Your task to perform on an android device: Add "logitech g933" to the cart on bestbuy Image 0: 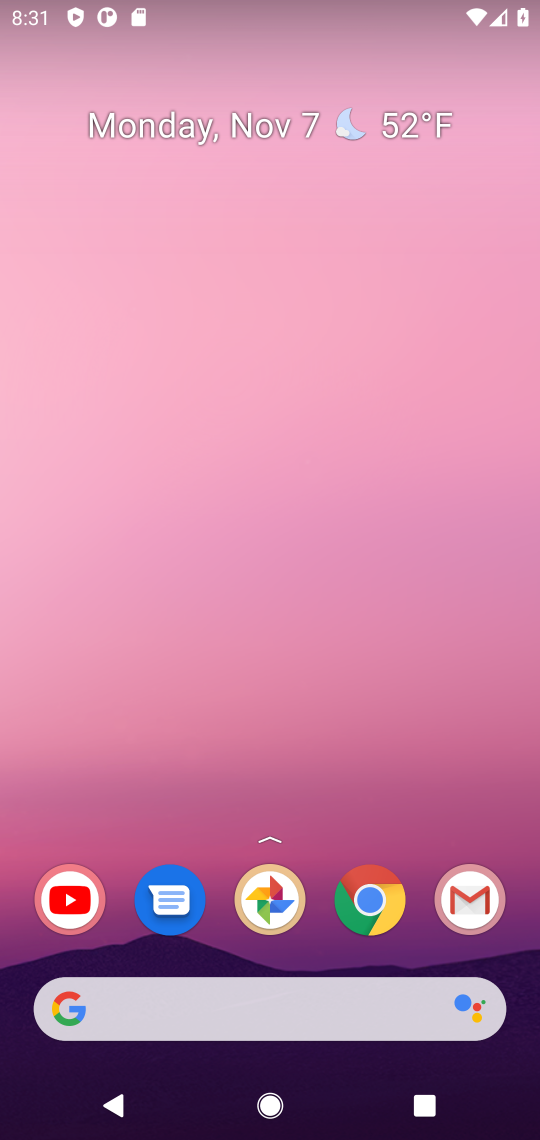
Step 0: click (201, 1025)
Your task to perform on an android device: Add "logitech g933" to the cart on bestbuy Image 1: 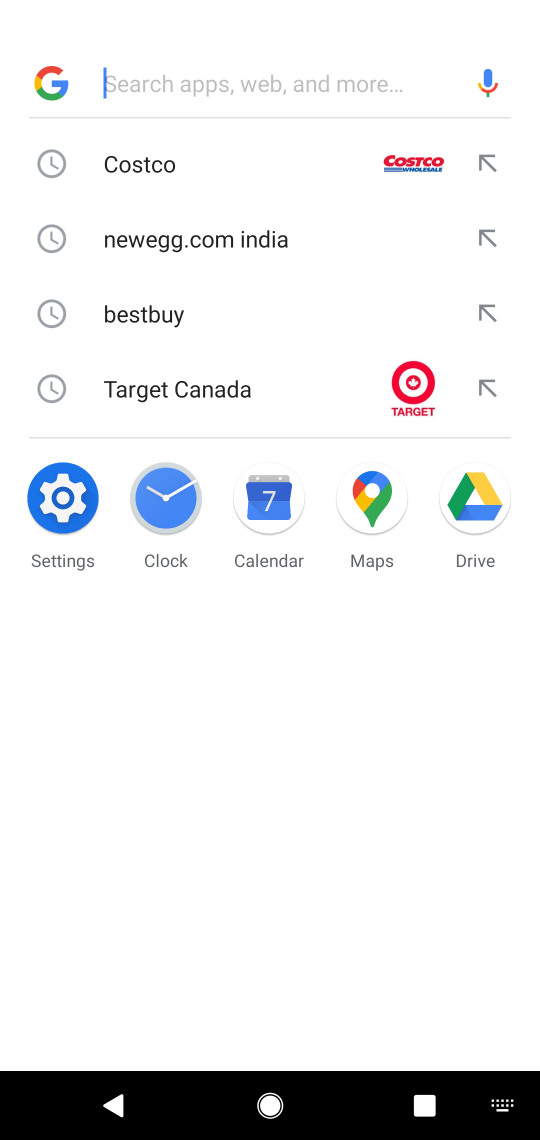
Step 1: click (210, 300)
Your task to perform on an android device: Add "logitech g933" to the cart on bestbuy Image 2: 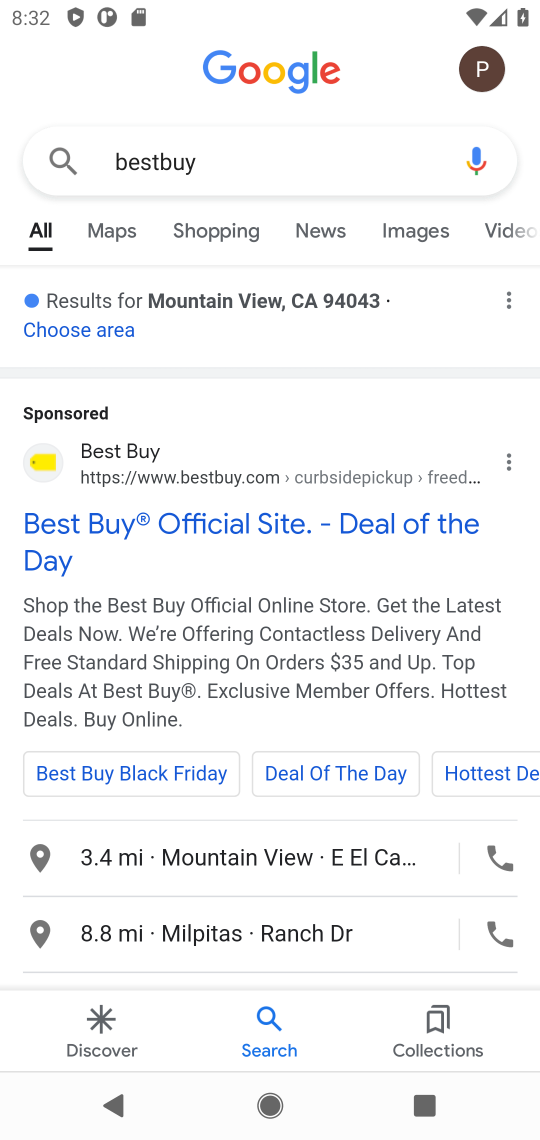
Step 2: click (184, 500)
Your task to perform on an android device: Add "logitech g933" to the cart on bestbuy Image 3: 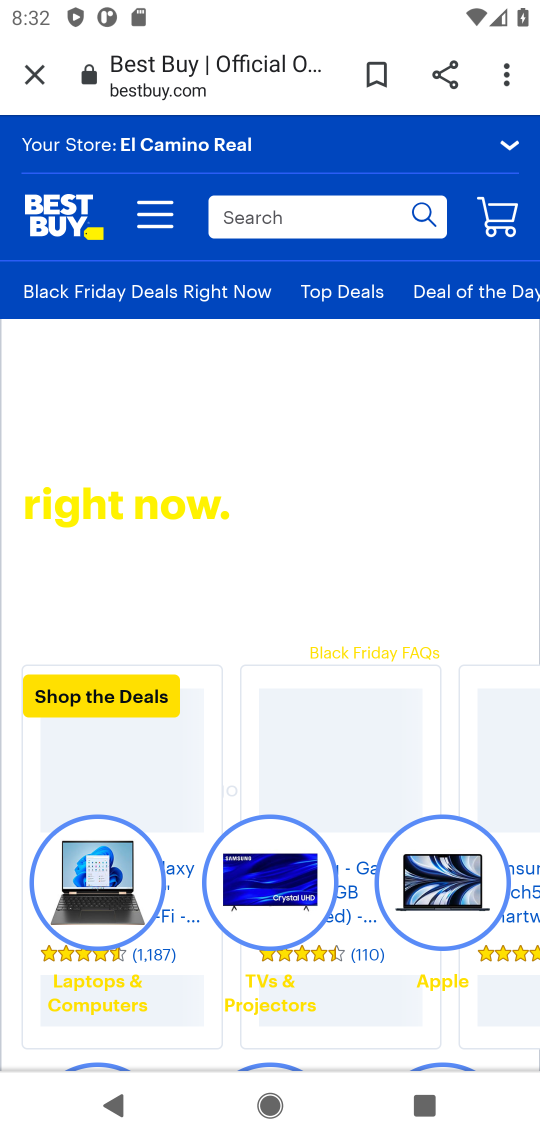
Step 3: click (283, 234)
Your task to perform on an android device: Add "logitech g933" to the cart on bestbuy Image 4: 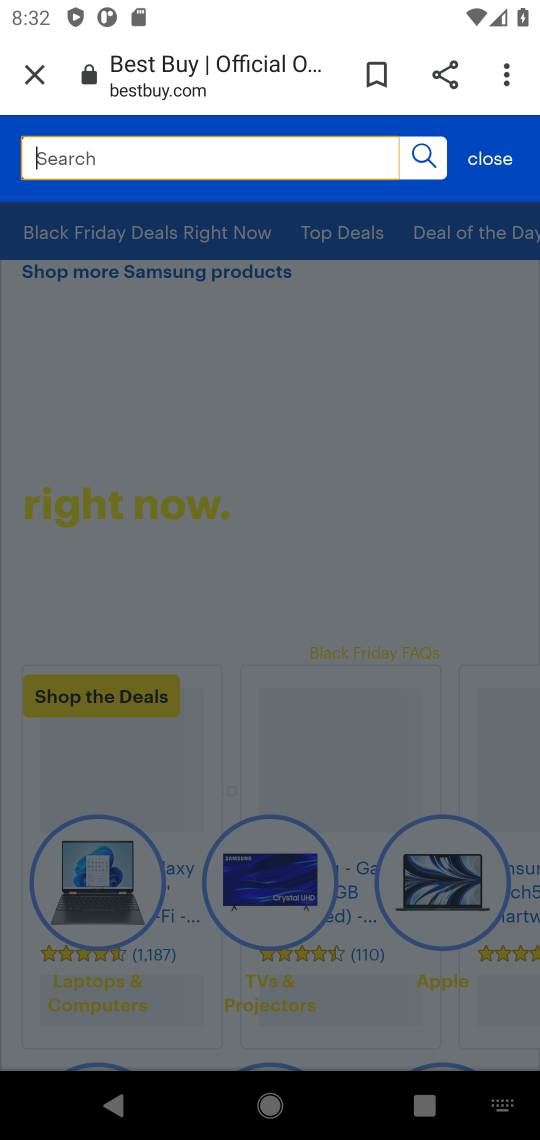
Step 4: type "logitech g933"
Your task to perform on an android device: Add "logitech g933" to the cart on bestbuy Image 5: 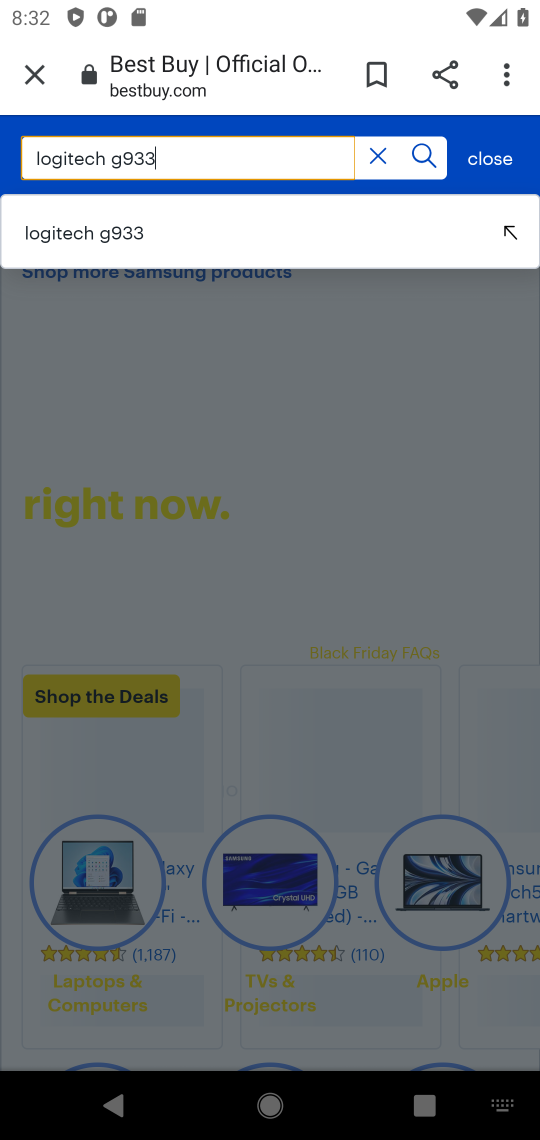
Step 5: click (515, 238)
Your task to perform on an android device: Add "logitech g933" to the cart on bestbuy Image 6: 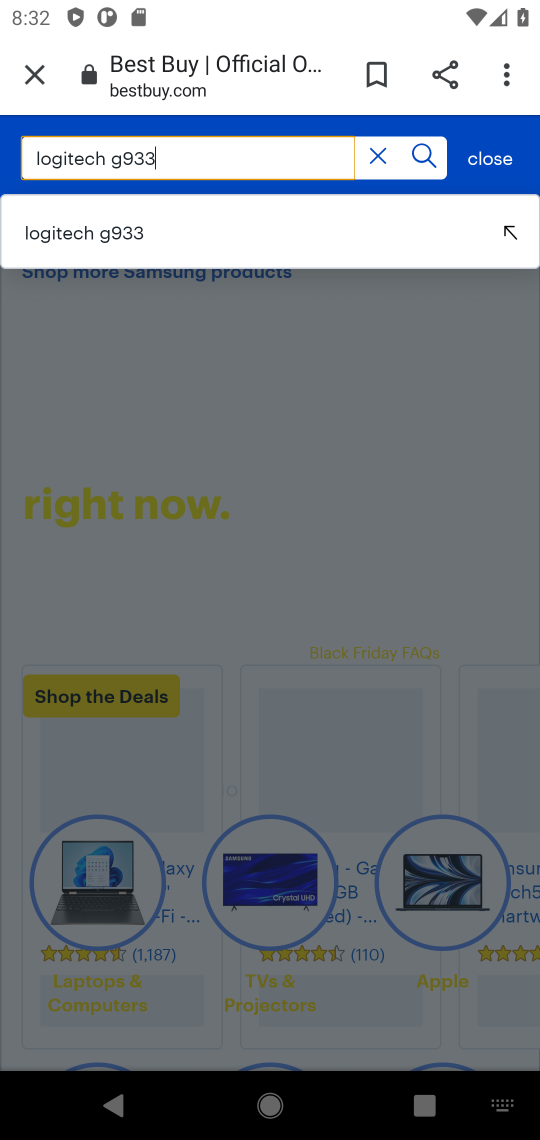
Step 6: click (426, 159)
Your task to perform on an android device: Add "logitech g933" to the cart on bestbuy Image 7: 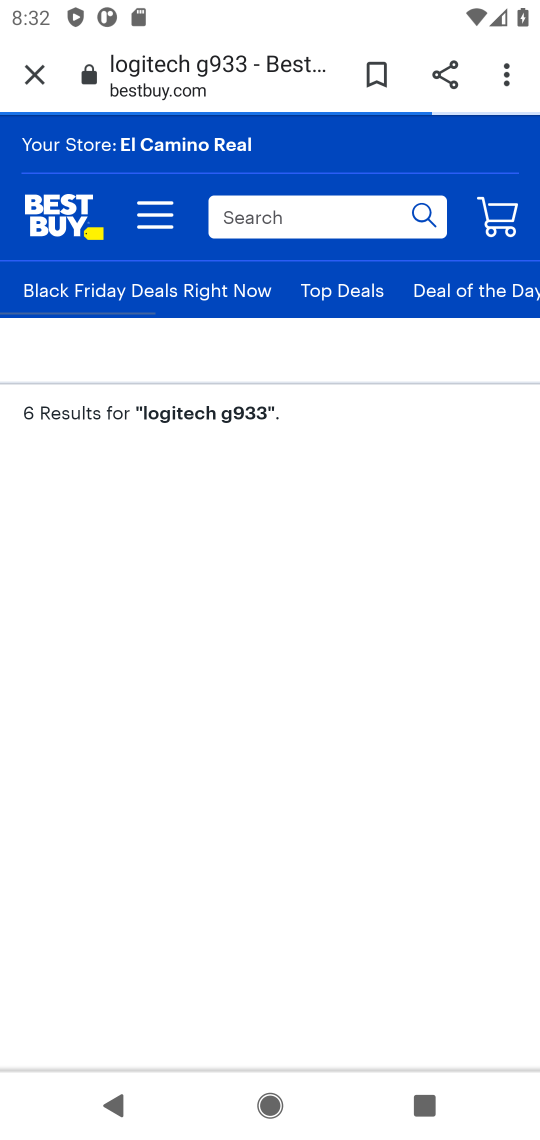
Step 7: click (419, 156)
Your task to perform on an android device: Add "logitech g933" to the cart on bestbuy Image 8: 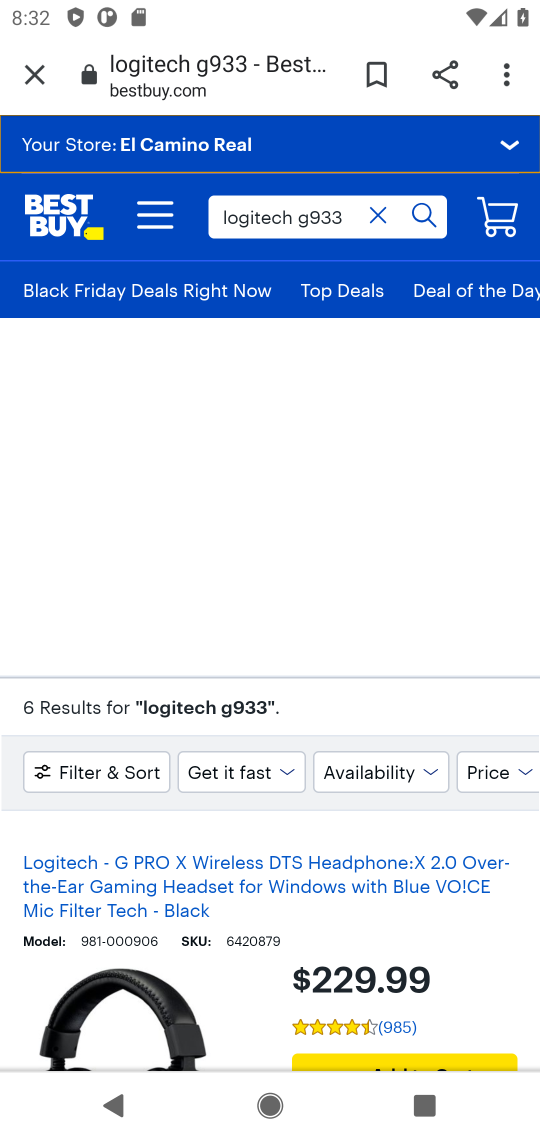
Step 8: drag from (455, 963) to (484, 576)
Your task to perform on an android device: Add "logitech g933" to the cart on bestbuy Image 9: 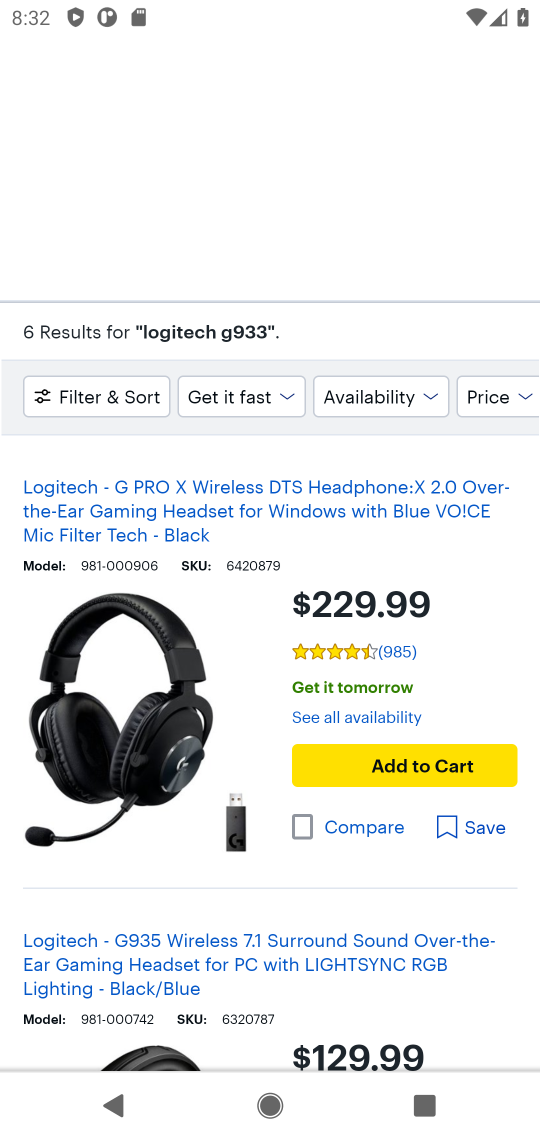
Step 9: click (433, 759)
Your task to perform on an android device: Add "logitech g933" to the cart on bestbuy Image 10: 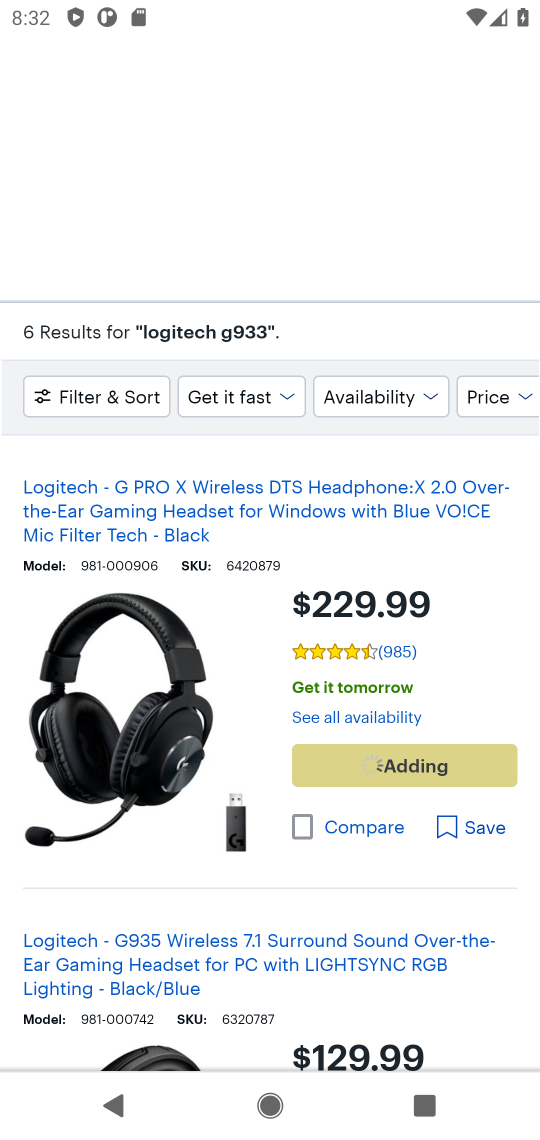
Step 10: task complete